Your task to perform on an android device: turn notification dots off Image 0: 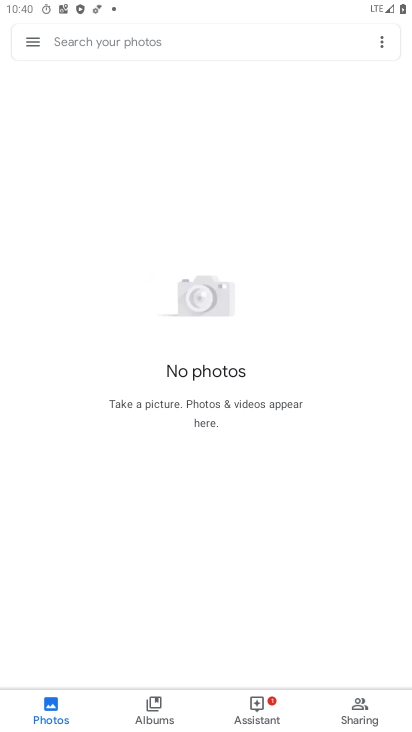
Step 0: press home button
Your task to perform on an android device: turn notification dots off Image 1: 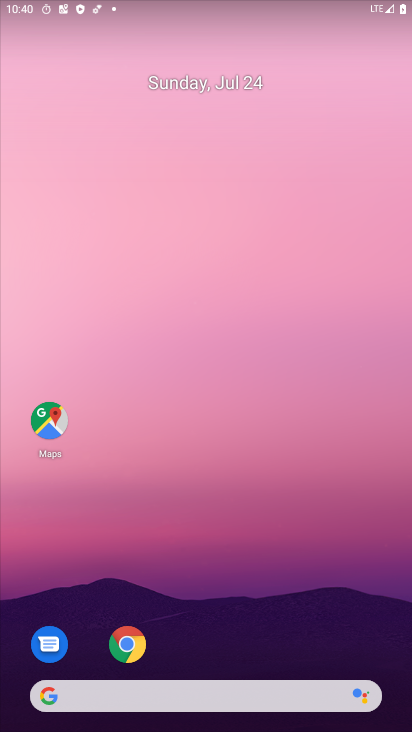
Step 1: drag from (132, 678) to (202, 188)
Your task to perform on an android device: turn notification dots off Image 2: 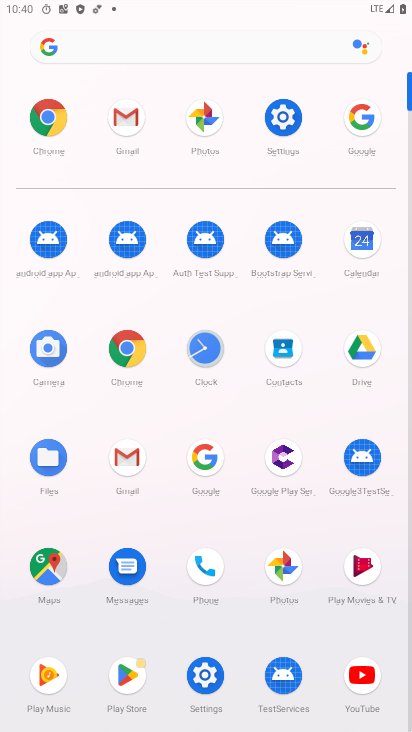
Step 2: click (287, 132)
Your task to perform on an android device: turn notification dots off Image 3: 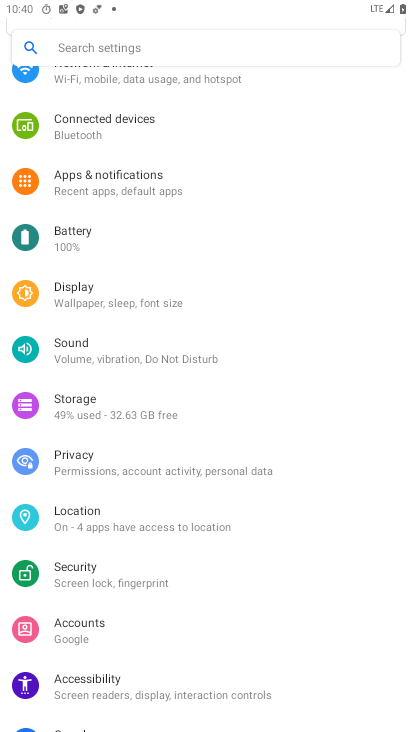
Step 3: click (110, 188)
Your task to perform on an android device: turn notification dots off Image 4: 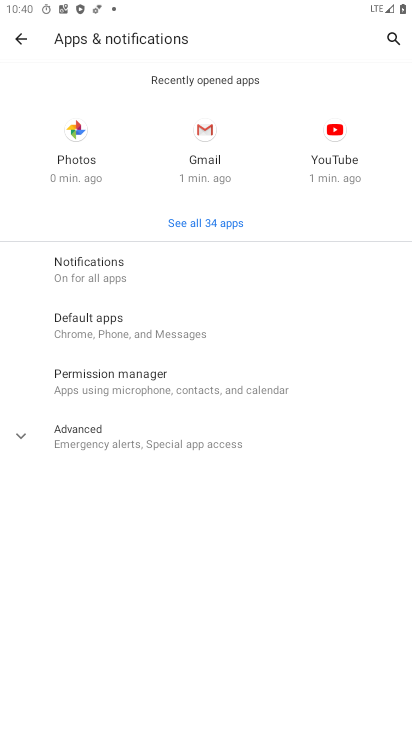
Step 4: click (85, 268)
Your task to perform on an android device: turn notification dots off Image 5: 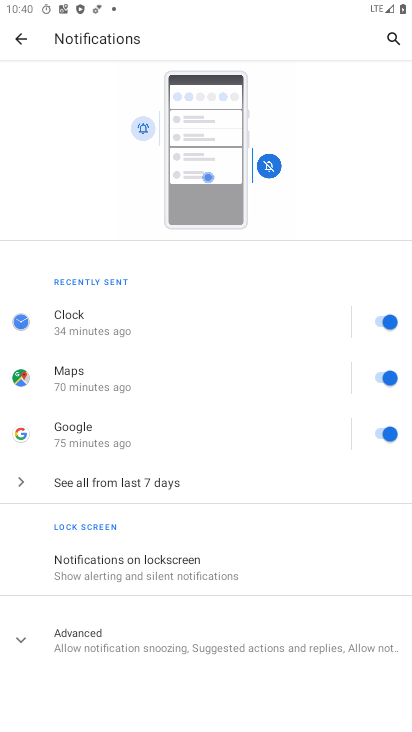
Step 5: click (103, 641)
Your task to perform on an android device: turn notification dots off Image 6: 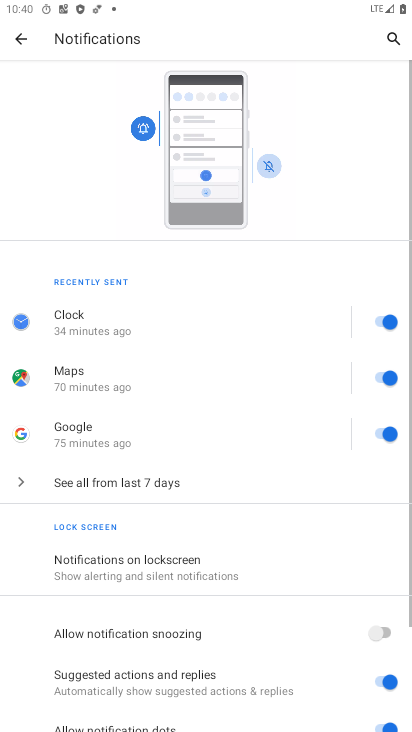
Step 6: drag from (216, 670) to (230, 341)
Your task to perform on an android device: turn notification dots off Image 7: 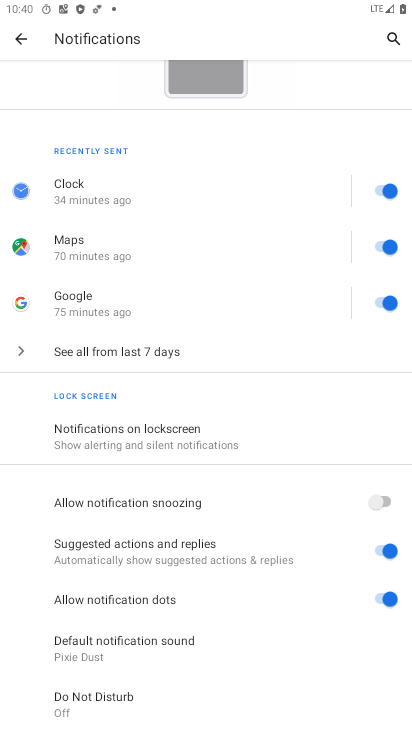
Step 7: click (381, 603)
Your task to perform on an android device: turn notification dots off Image 8: 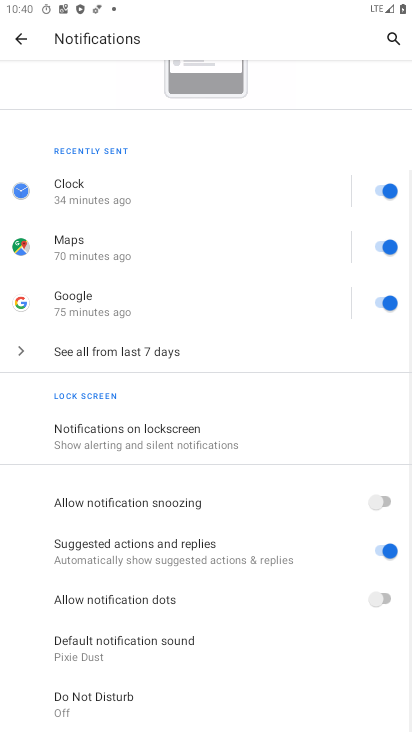
Step 8: task complete